Your task to perform on an android device: turn on wifi Image 0: 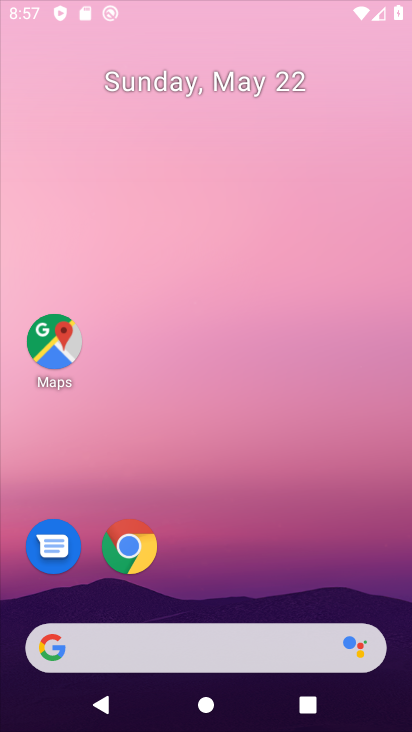
Step 0: click (246, 159)
Your task to perform on an android device: turn on wifi Image 1: 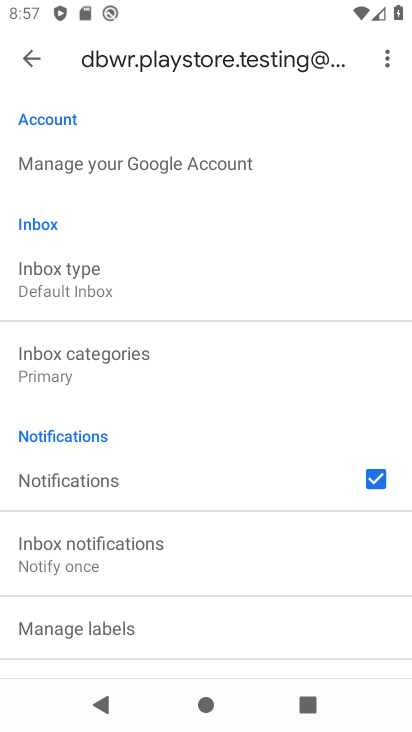
Step 1: drag from (199, 582) to (232, 225)
Your task to perform on an android device: turn on wifi Image 2: 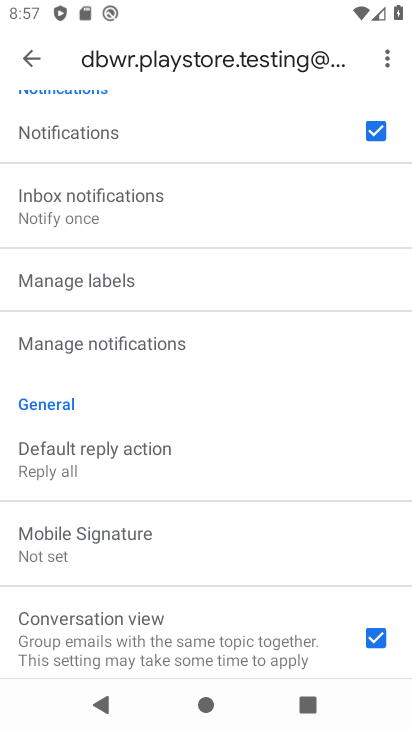
Step 2: drag from (228, 179) to (270, 728)
Your task to perform on an android device: turn on wifi Image 3: 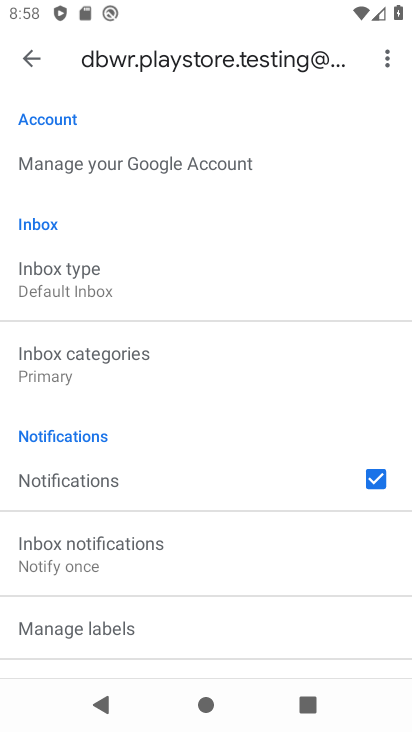
Step 3: drag from (195, 600) to (272, 51)
Your task to perform on an android device: turn on wifi Image 4: 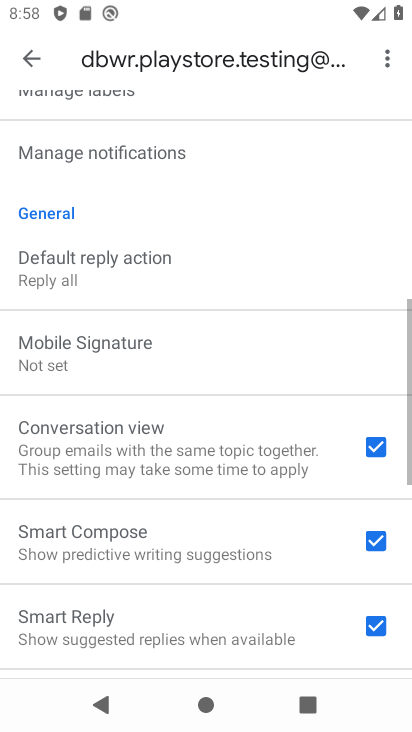
Step 4: drag from (206, 170) to (303, 702)
Your task to perform on an android device: turn on wifi Image 5: 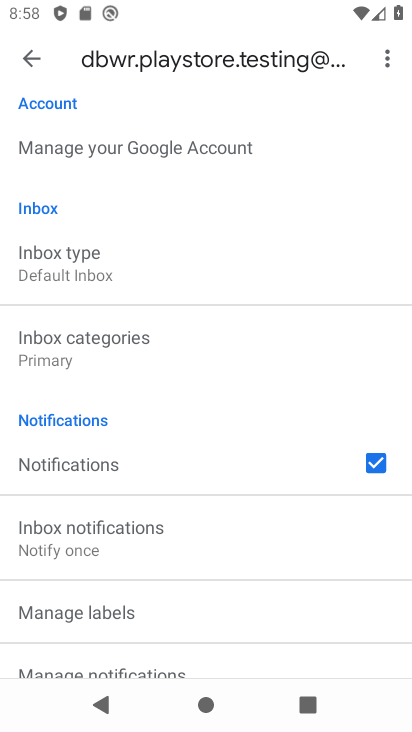
Step 5: drag from (259, 243) to (213, 613)
Your task to perform on an android device: turn on wifi Image 6: 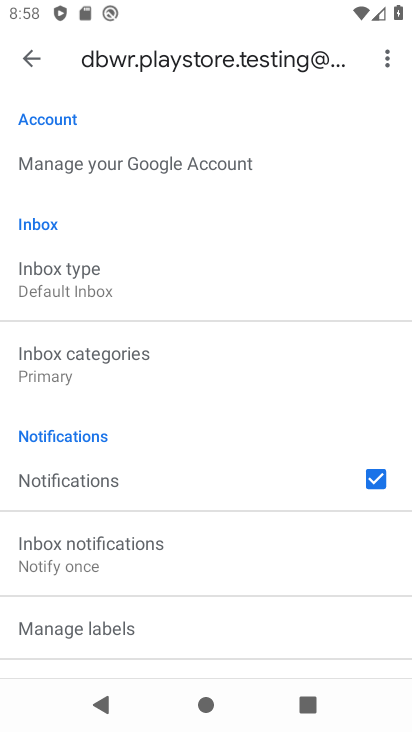
Step 6: press home button
Your task to perform on an android device: turn on wifi Image 7: 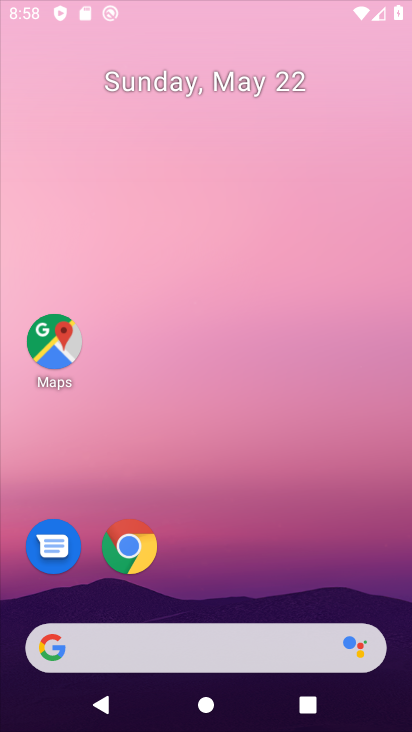
Step 7: drag from (179, 622) to (294, 125)
Your task to perform on an android device: turn on wifi Image 8: 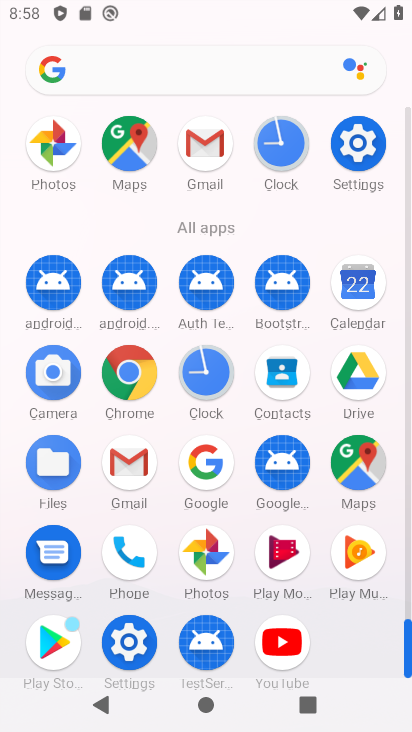
Step 8: click (363, 129)
Your task to perform on an android device: turn on wifi Image 9: 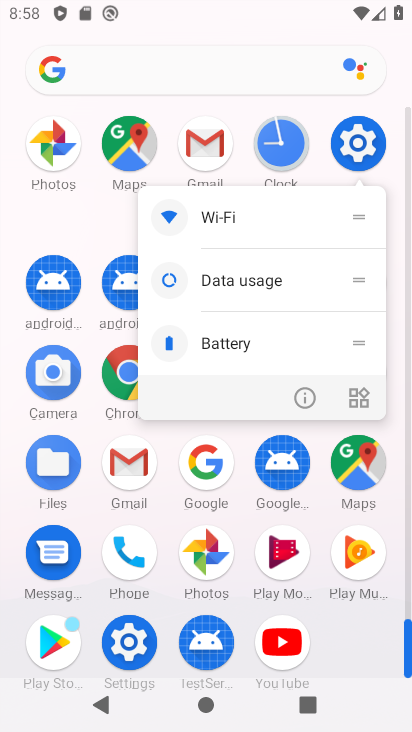
Step 9: click (299, 397)
Your task to perform on an android device: turn on wifi Image 10: 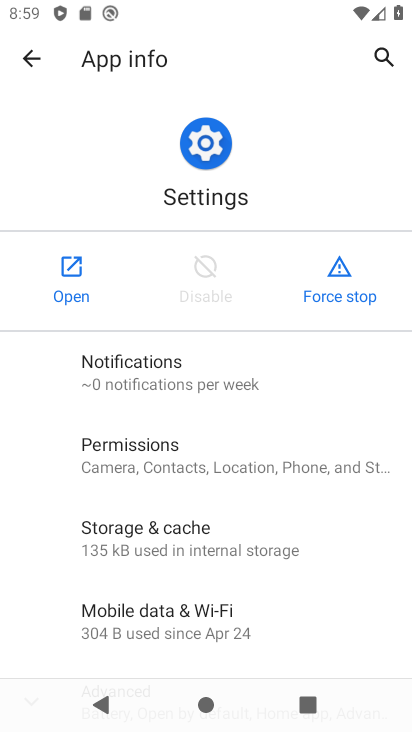
Step 10: click (75, 264)
Your task to perform on an android device: turn on wifi Image 11: 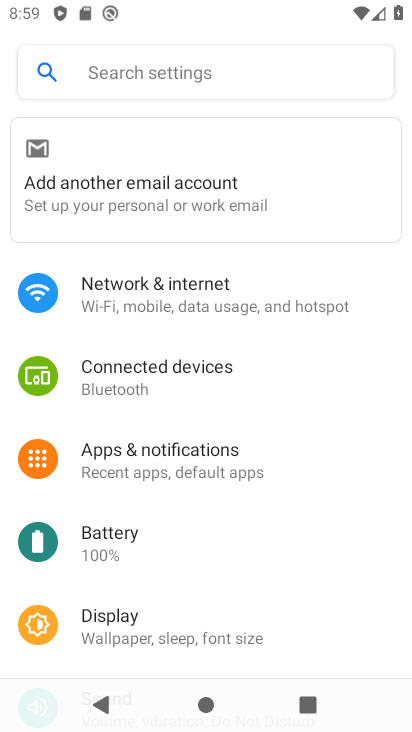
Step 11: drag from (225, 533) to (271, 620)
Your task to perform on an android device: turn on wifi Image 12: 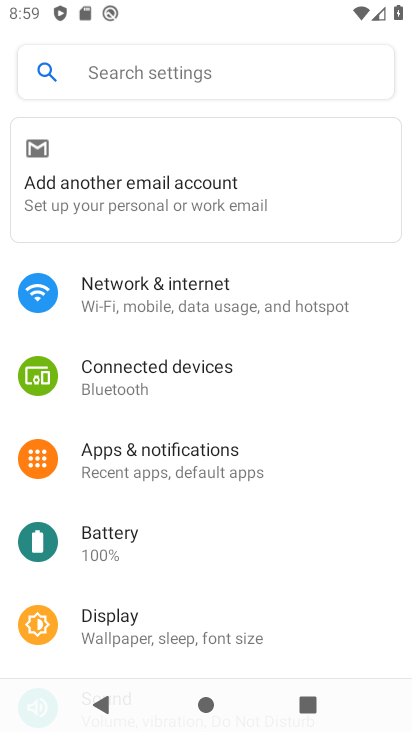
Step 12: click (211, 295)
Your task to perform on an android device: turn on wifi Image 13: 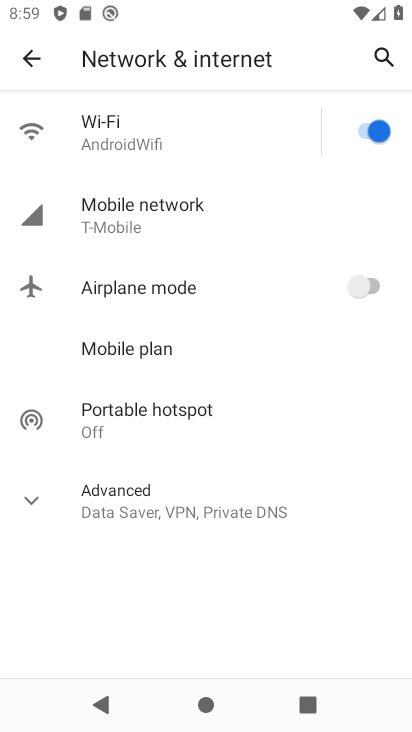
Step 13: task complete